Your task to perform on an android device: turn off notifications in google photos Image 0: 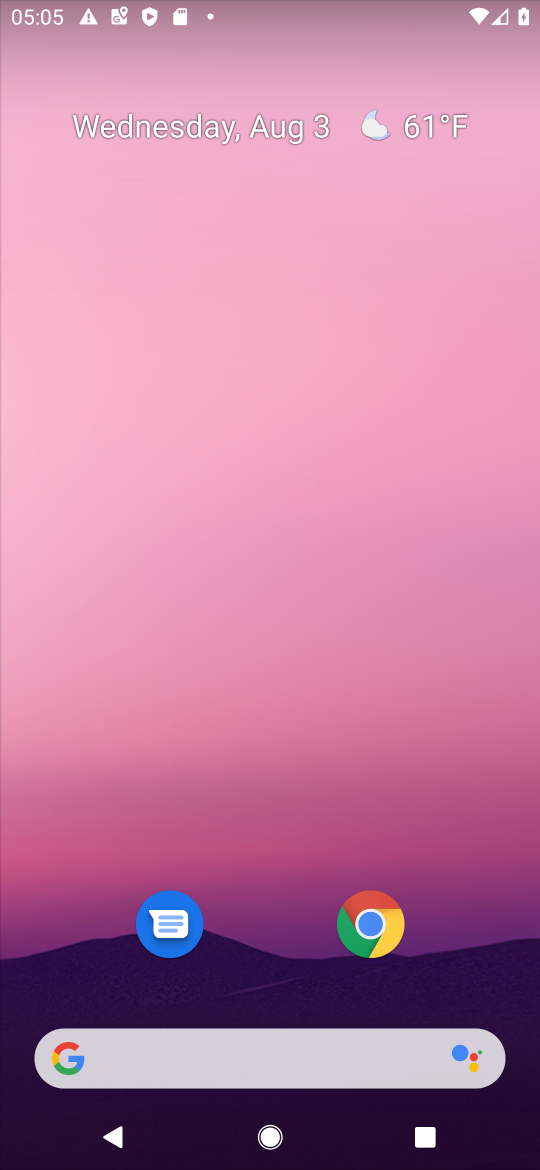
Step 0: drag from (264, 970) to (211, 328)
Your task to perform on an android device: turn off notifications in google photos Image 1: 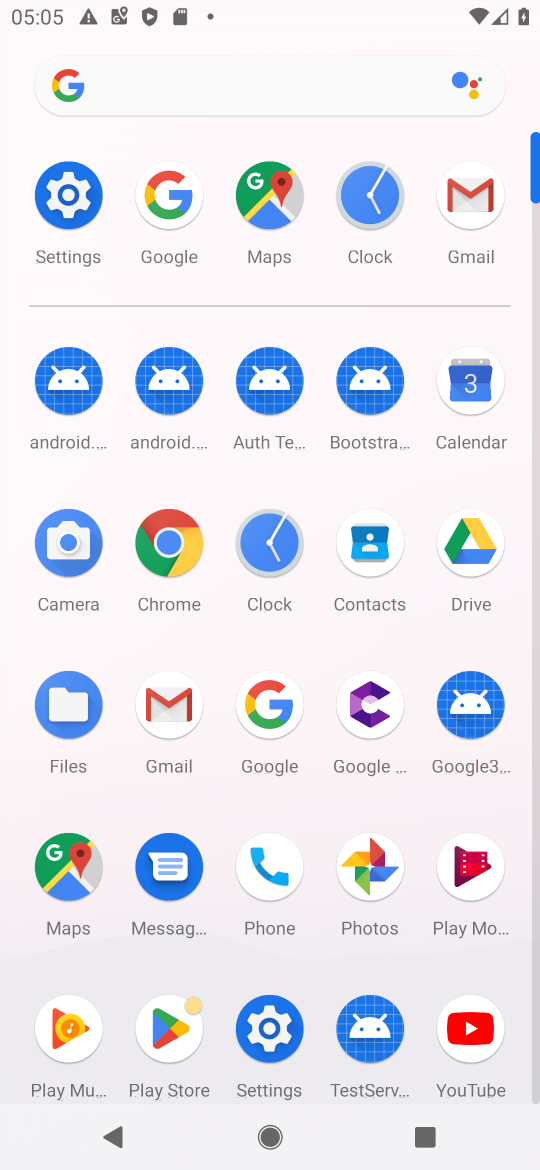
Step 1: click (374, 880)
Your task to perform on an android device: turn off notifications in google photos Image 2: 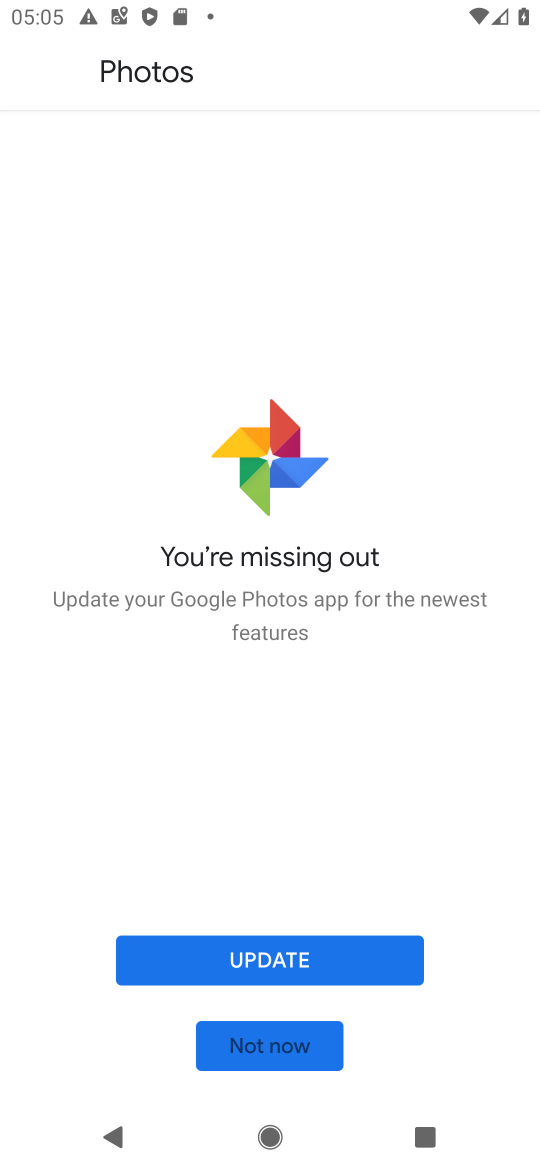
Step 2: click (242, 1067)
Your task to perform on an android device: turn off notifications in google photos Image 3: 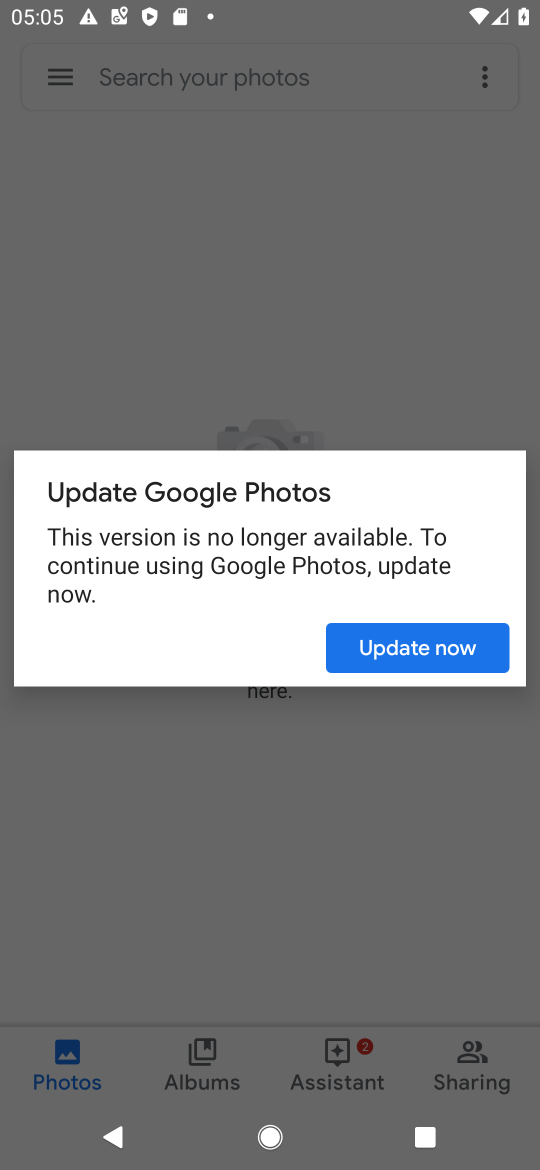
Step 3: click (427, 663)
Your task to perform on an android device: turn off notifications in google photos Image 4: 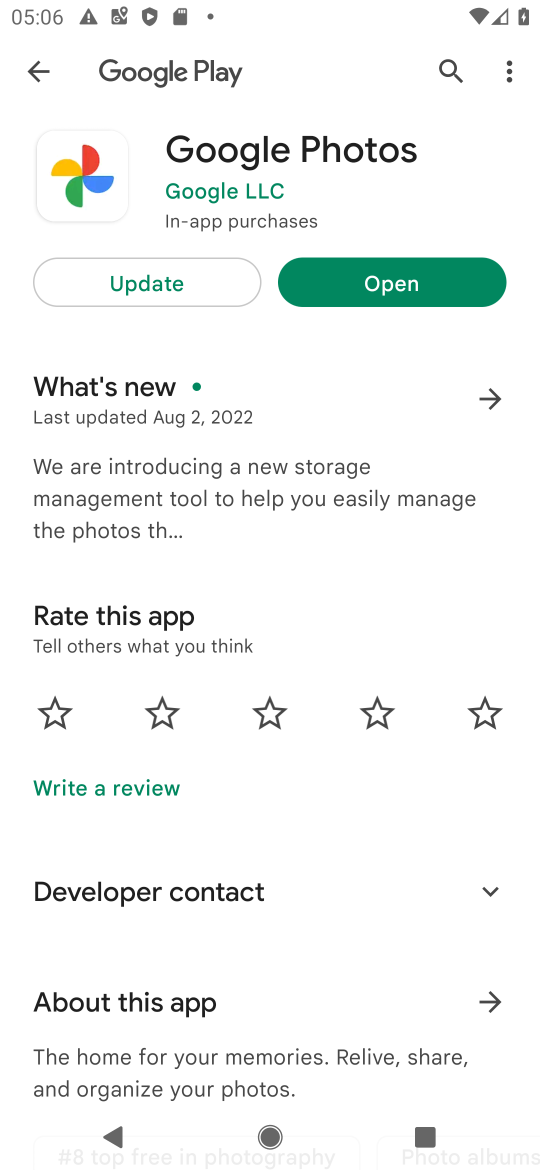
Step 4: click (349, 283)
Your task to perform on an android device: turn off notifications in google photos Image 5: 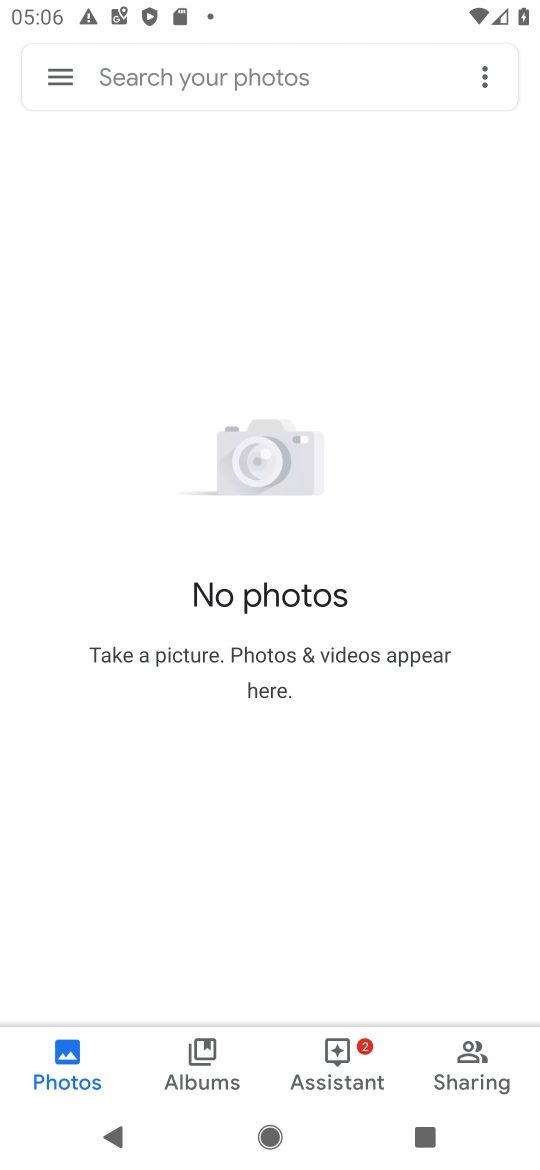
Step 5: click (60, 92)
Your task to perform on an android device: turn off notifications in google photos Image 6: 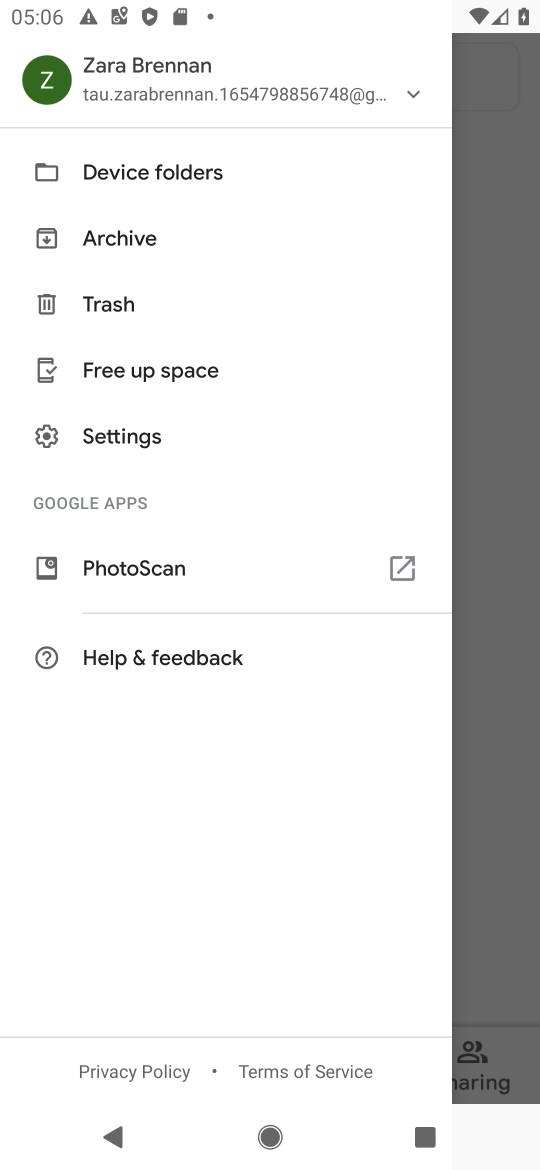
Step 6: click (118, 456)
Your task to perform on an android device: turn off notifications in google photos Image 7: 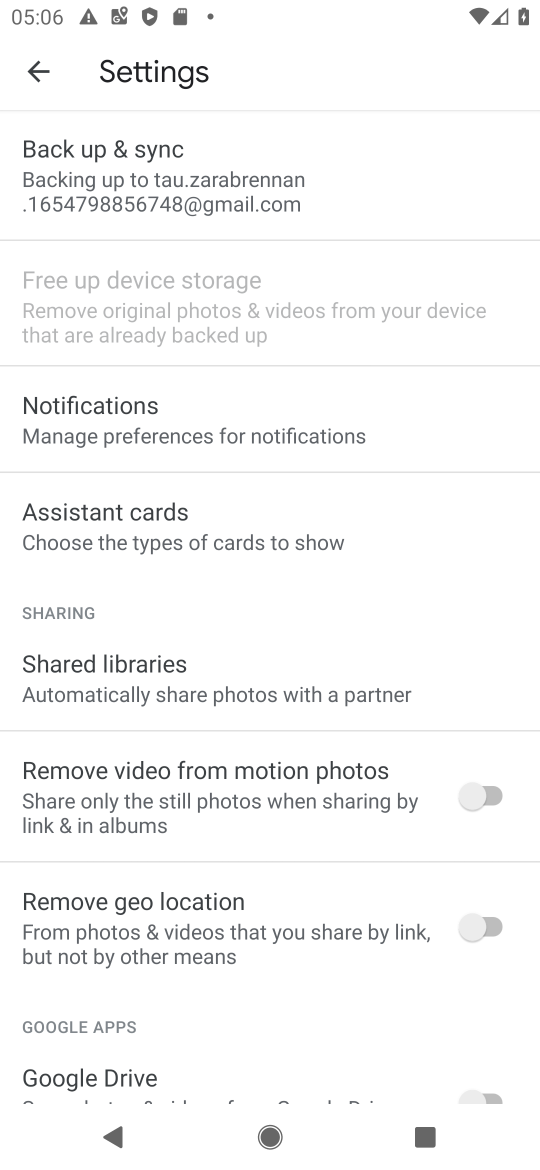
Step 7: click (237, 441)
Your task to perform on an android device: turn off notifications in google photos Image 8: 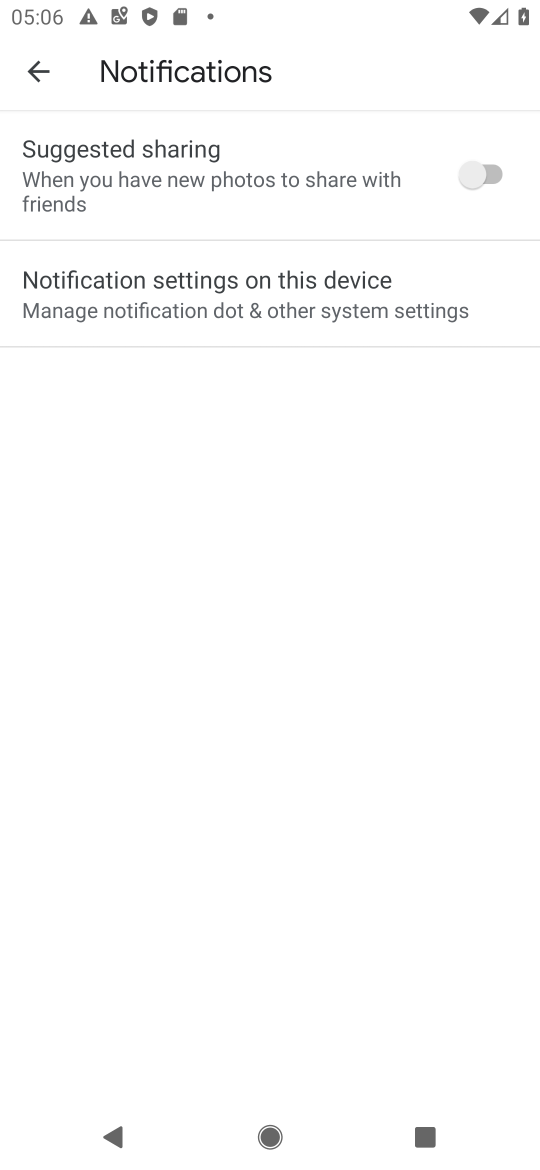
Step 8: click (205, 324)
Your task to perform on an android device: turn off notifications in google photos Image 9: 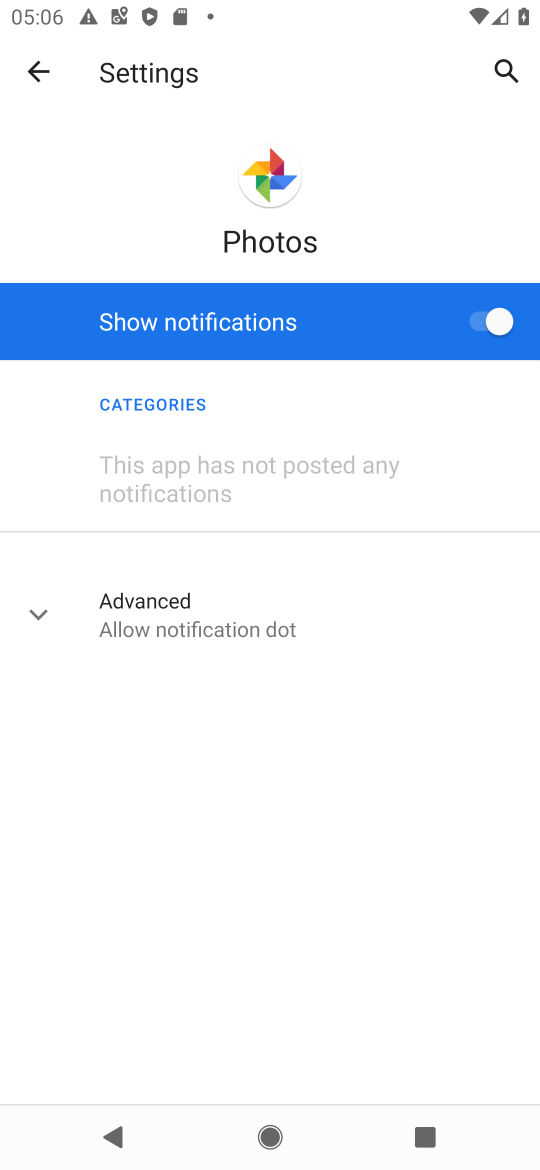
Step 9: click (500, 319)
Your task to perform on an android device: turn off notifications in google photos Image 10: 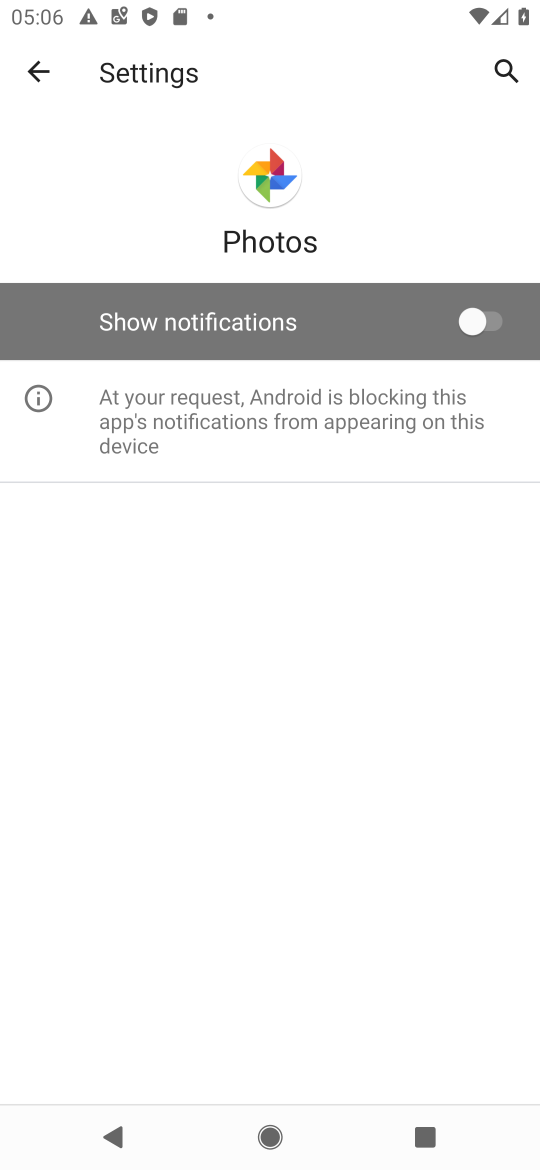
Step 10: task complete